Your task to perform on an android device: change the clock style Image 0: 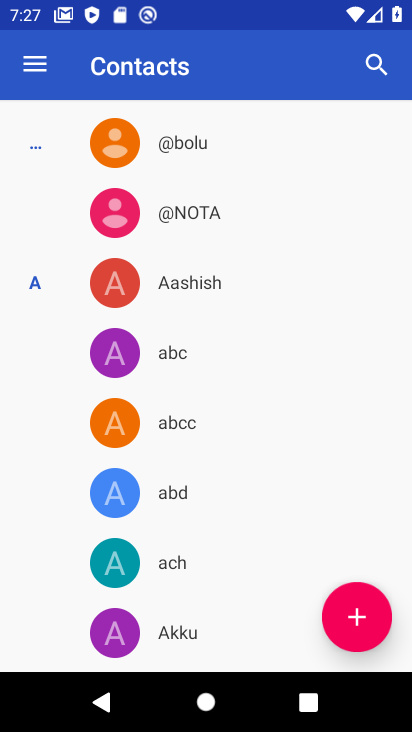
Step 0: press home button
Your task to perform on an android device: change the clock style Image 1: 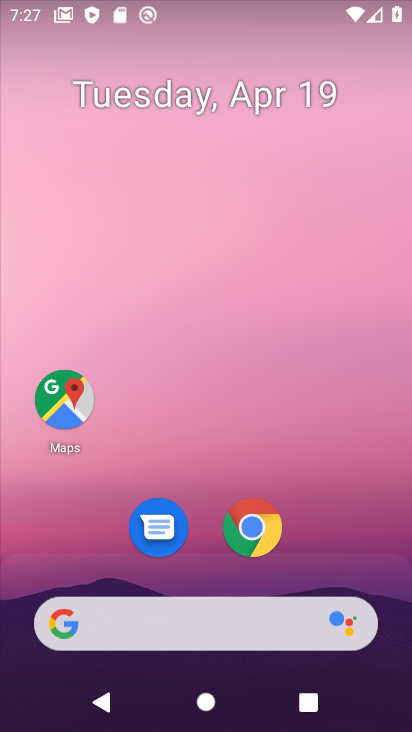
Step 1: drag from (384, 570) to (361, 95)
Your task to perform on an android device: change the clock style Image 2: 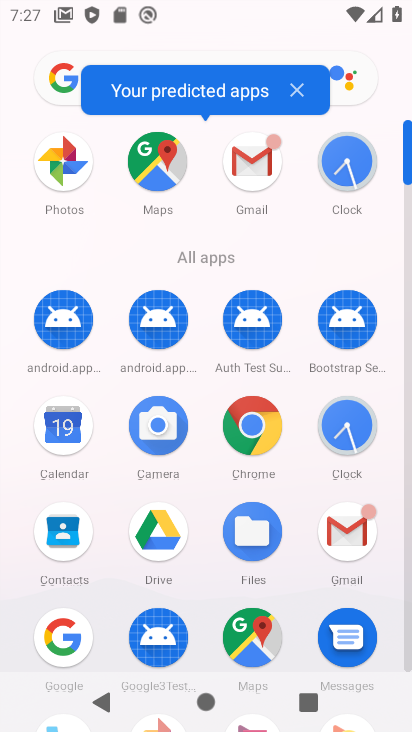
Step 2: click (355, 435)
Your task to perform on an android device: change the clock style Image 3: 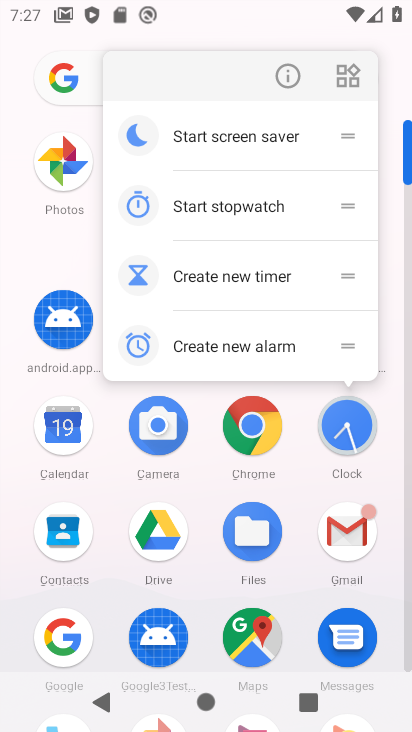
Step 3: click (355, 435)
Your task to perform on an android device: change the clock style Image 4: 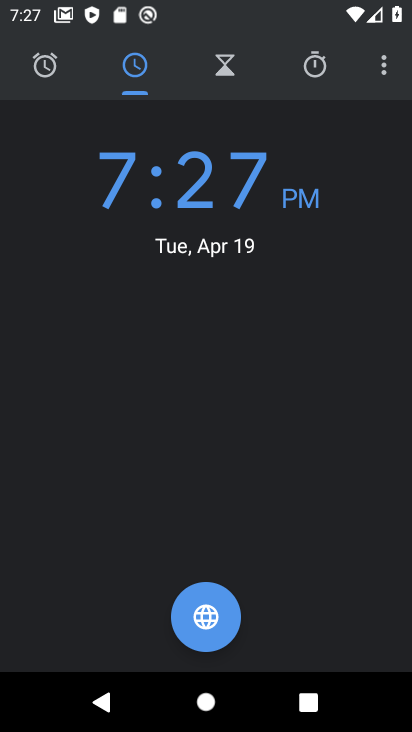
Step 4: click (385, 69)
Your task to perform on an android device: change the clock style Image 5: 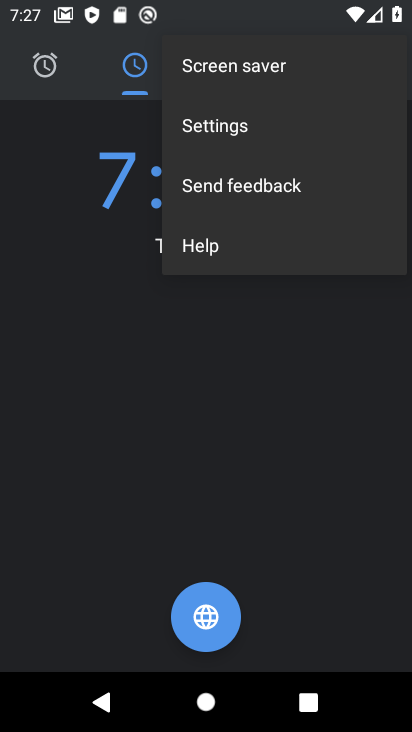
Step 5: click (244, 131)
Your task to perform on an android device: change the clock style Image 6: 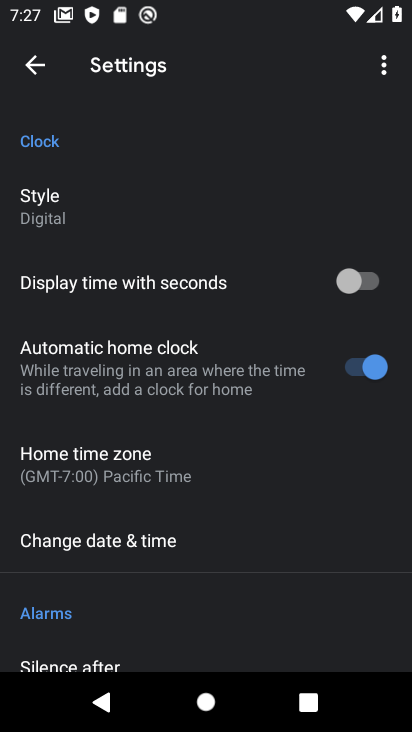
Step 6: click (56, 208)
Your task to perform on an android device: change the clock style Image 7: 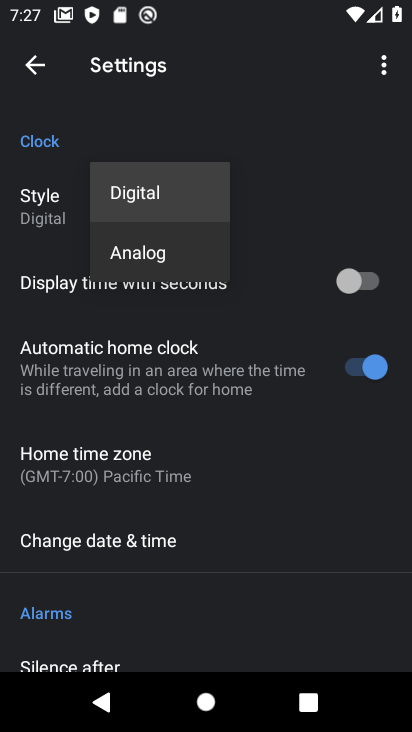
Step 7: click (132, 255)
Your task to perform on an android device: change the clock style Image 8: 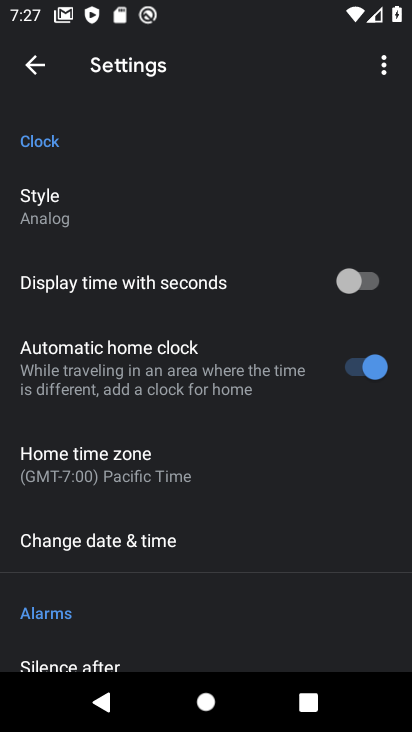
Step 8: task complete